Your task to perform on an android device: What is the speed of a bicycle? Image 0: 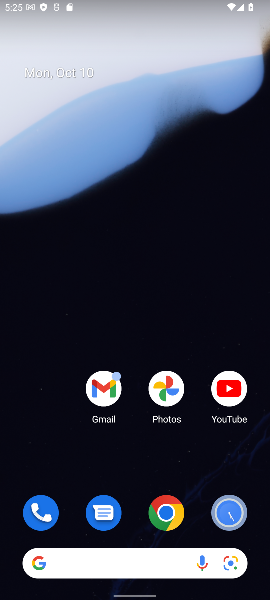
Step 0: click (109, 559)
Your task to perform on an android device: What is the speed of a bicycle? Image 1: 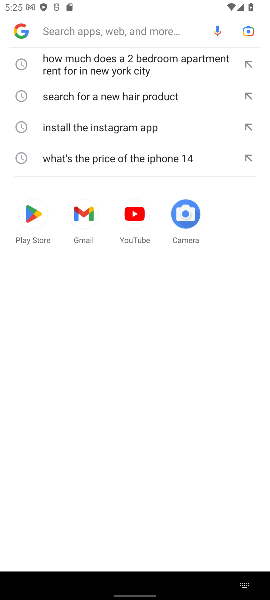
Step 1: type "What is the speed of a bicycle?"
Your task to perform on an android device: What is the speed of a bicycle? Image 2: 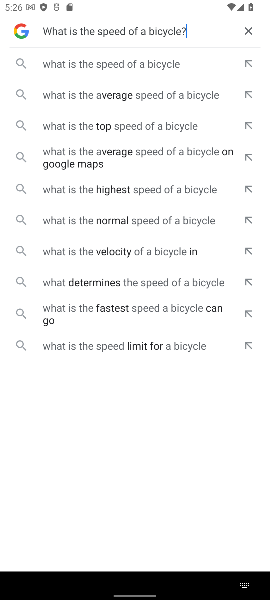
Step 2: click (129, 68)
Your task to perform on an android device: What is the speed of a bicycle? Image 3: 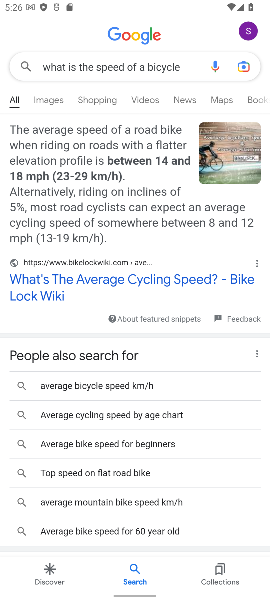
Step 3: task complete